Your task to perform on an android device: What's the weather going to be tomorrow? Image 0: 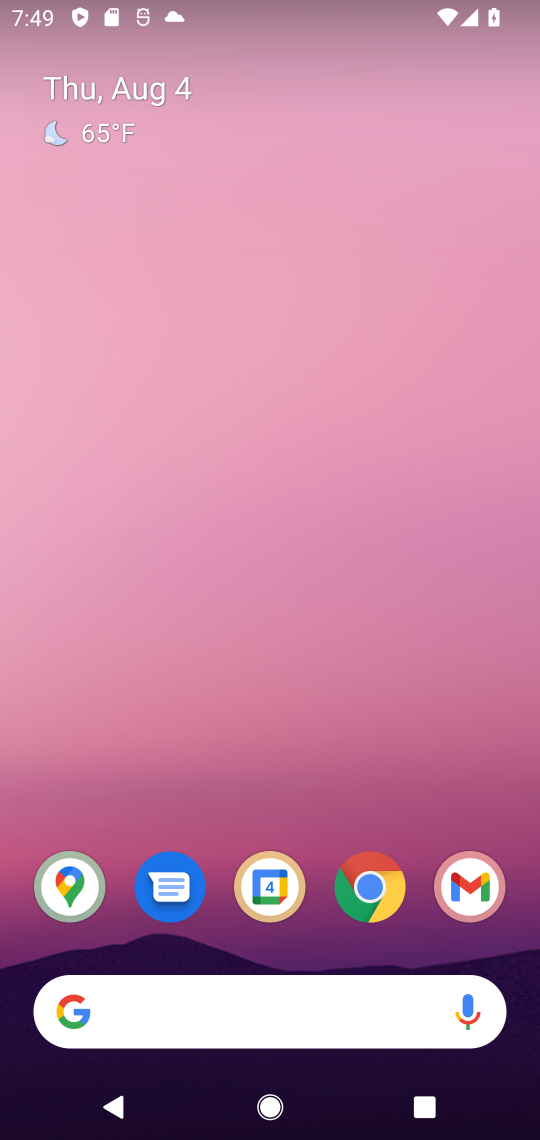
Step 0: click (301, 965)
Your task to perform on an android device: What's the weather going to be tomorrow? Image 1: 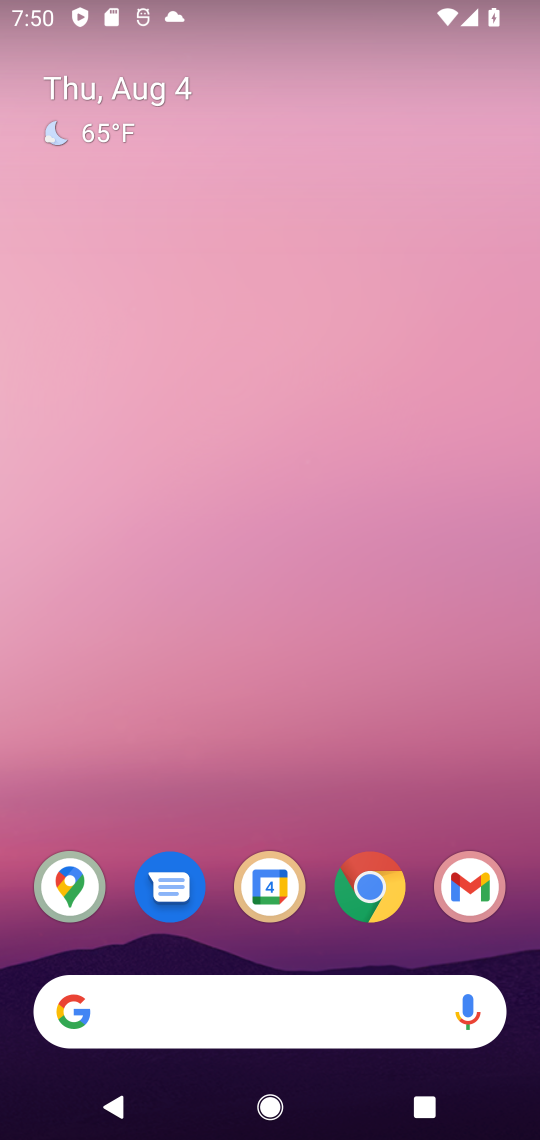
Step 1: click (53, 897)
Your task to perform on an android device: What's the weather going to be tomorrow? Image 2: 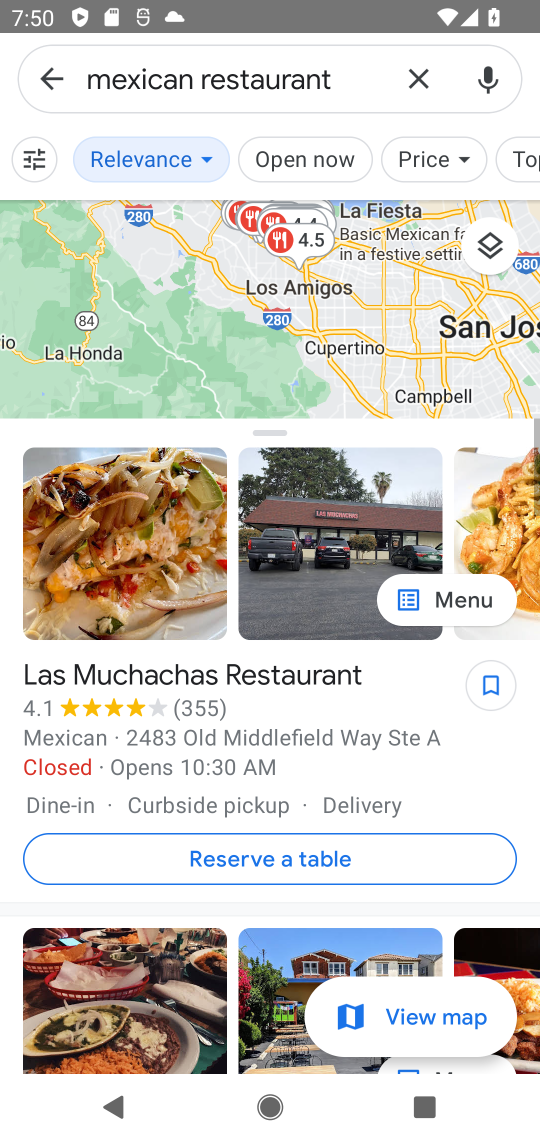
Step 2: click (410, 87)
Your task to perform on an android device: What's the weather going to be tomorrow? Image 3: 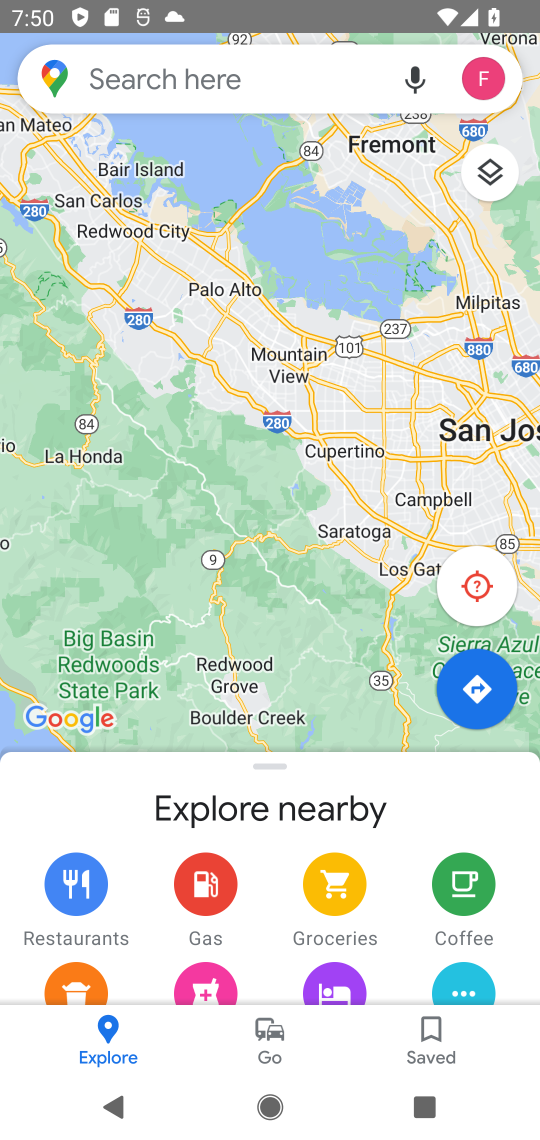
Step 3: task complete